Your task to perform on an android device: Open the Play Movies app and select the watchlist tab. Image 0: 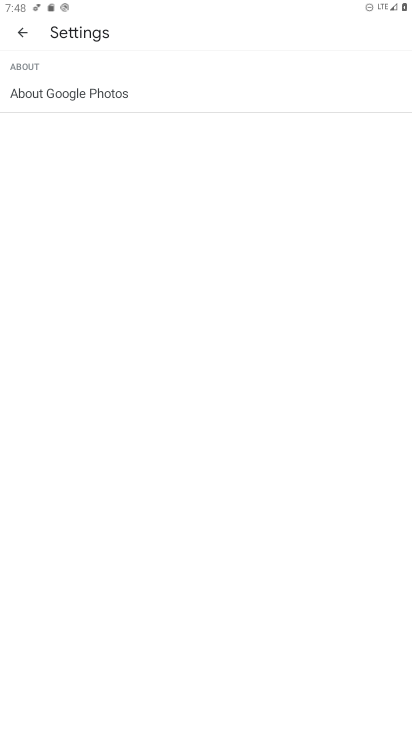
Step 0: drag from (221, 657) to (286, 293)
Your task to perform on an android device: Open the Play Movies app and select the watchlist tab. Image 1: 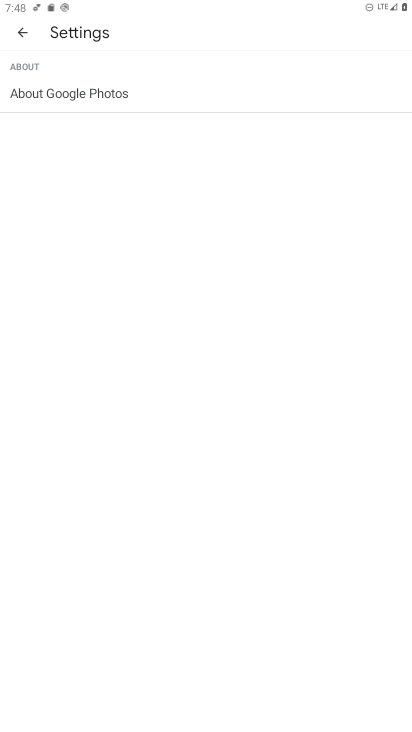
Step 1: press home button
Your task to perform on an android device: Open the Play Movies app and select the watchlist tab. Image 2: 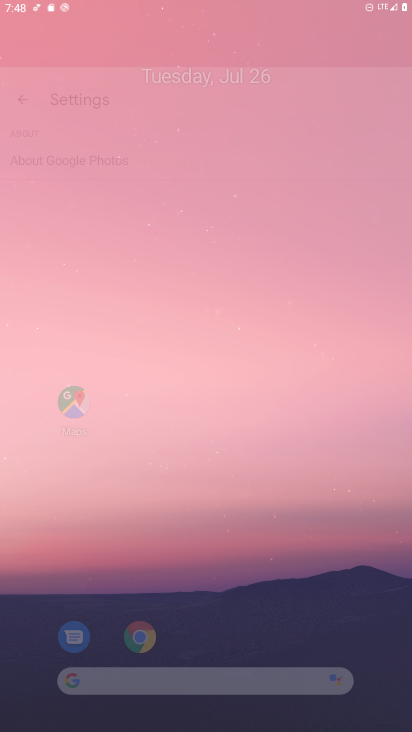
Step 2: drag from (189, 536) to (284, 195)
Your task to perform on an android device: Open the Play Movies app and select the watchlist tab. Image 3: 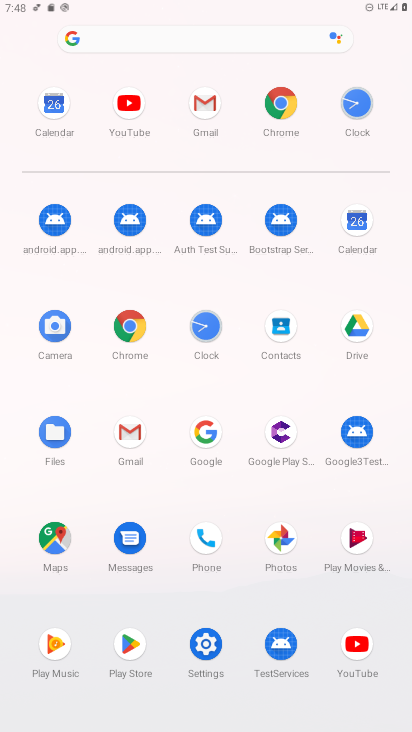
Step 3: click (367, 544)
Your task to perform on an android device: Open the Play Movies app and select the watchlist tab. Image 4: 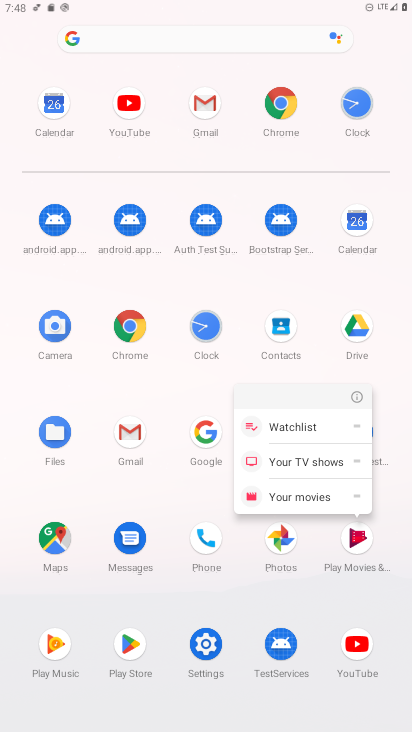
Step 4: click (271, 429)
Your task to perform on an android device: Open the Play Movies app and select the watchlist tab. Image 5: 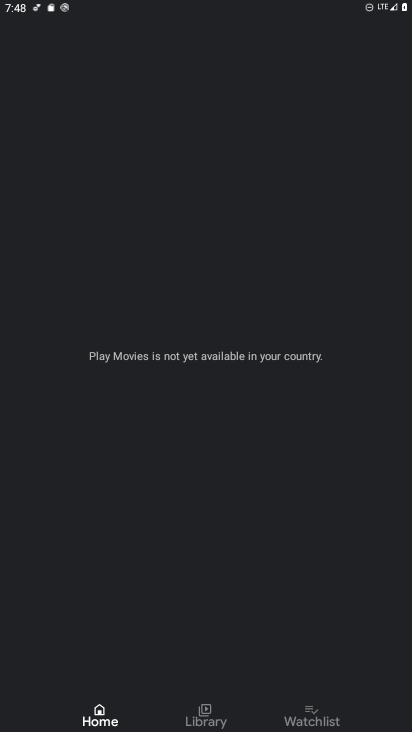
Step 5: click (320, 716)
Your task to perform on an android device: Open the Play Movies app and select the watchlist tab. Image 6: 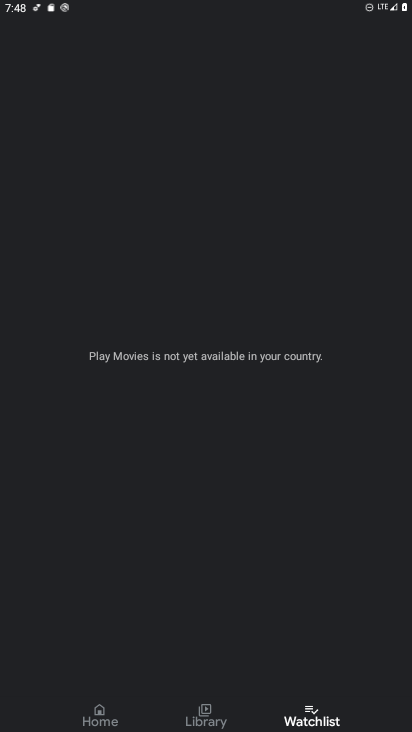
Step 6: task complete